Your task to perform on an android device: turn off notifications in google photos Image 0: 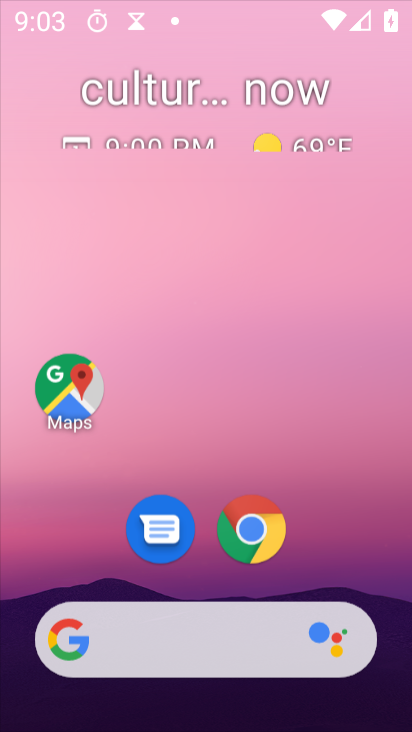
Step 0: drag from (357, 254) to (299, 72)
Your task to perform on an android device: turn off notifications in google photos Image 1: 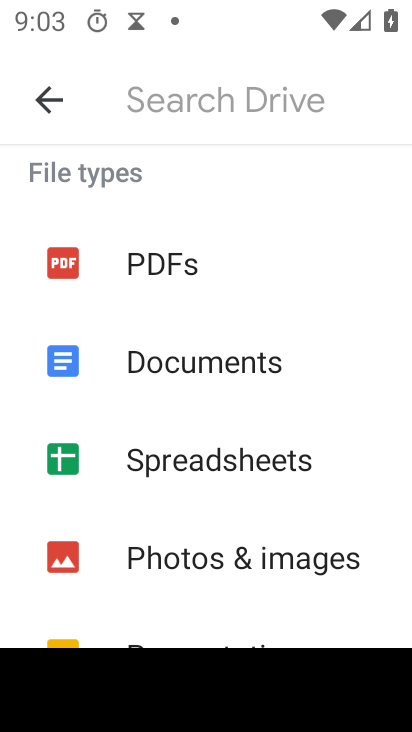
Step 1: press home button
Your task to perform on an android device: turn off notifications in google photos Image 2: 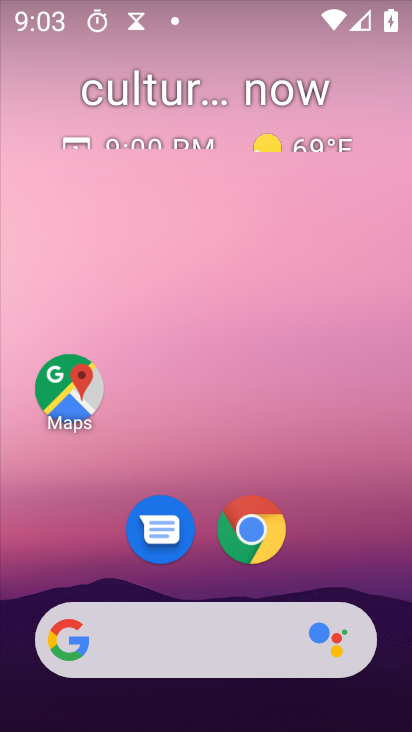
Step 2: drag from (347, 528) to (313, 64)
Your task to perform on an android device: turn off notifications in google photos Image 3: 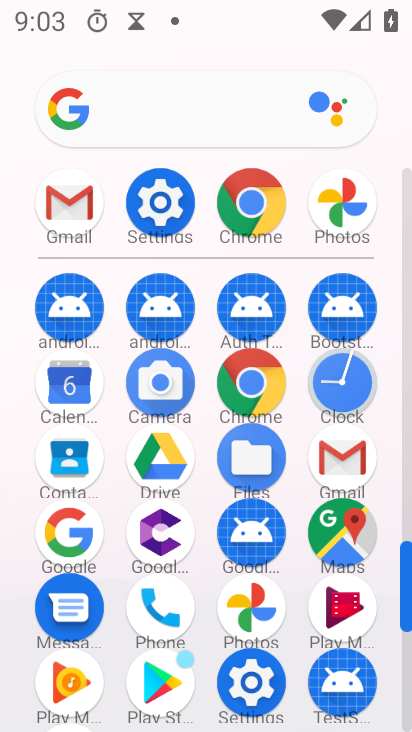
Step 3: click (241, 611)
Your task to perform on an android device: turn off notifications in google photos Image 4: 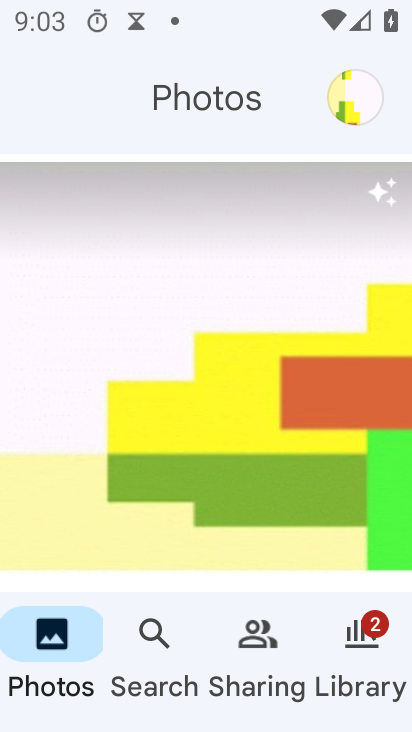
Step 4: click (362, 105)
Your task to perform on an android device: turn off notifications in google photos Image 5: 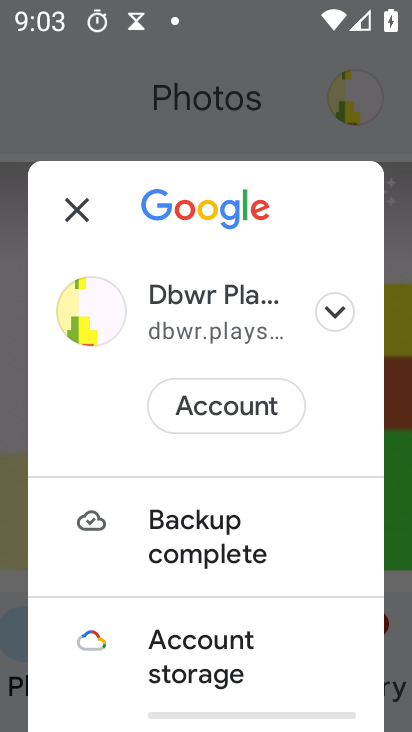
Step 5: drag from (275, 660) to (261, 154)
Your task to perform on an android device: turn off notifications in google photos Image 6: 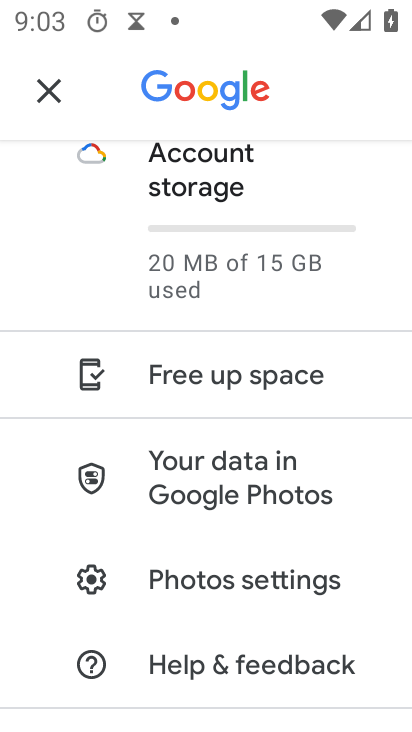
Step 6: click (280, 584)
Your task to perform on an android device: turn off notifications in google photos Image 7: 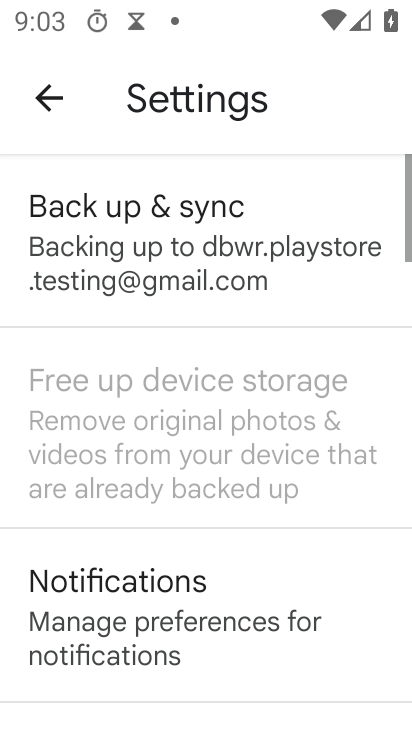
Step 7: drag from (285, 600) to (245, 297)
Your task to perform on an android device: turn off notifications in google photos Image 8: 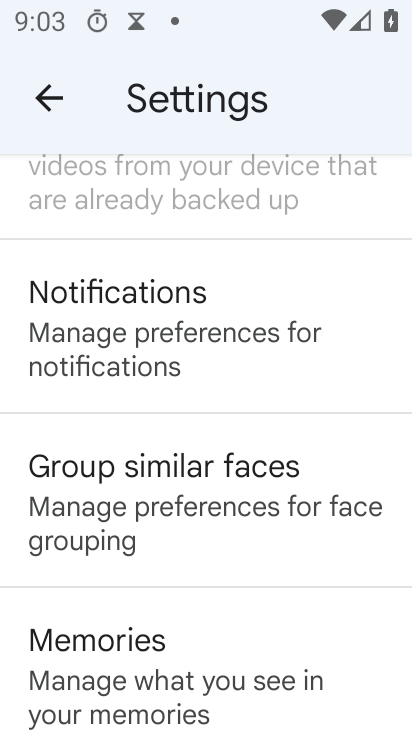
Step 8: click (239, 309)
Your task to perform on an android device: turn off notifications in google photos Image 9: 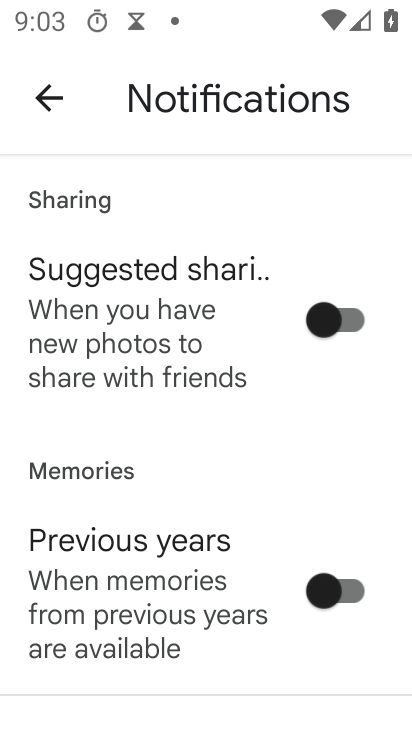
Step 9: drag from (232, 582) to (191, 152)
Your task to perform on an android device: turn off notifications in google photos Image 10: 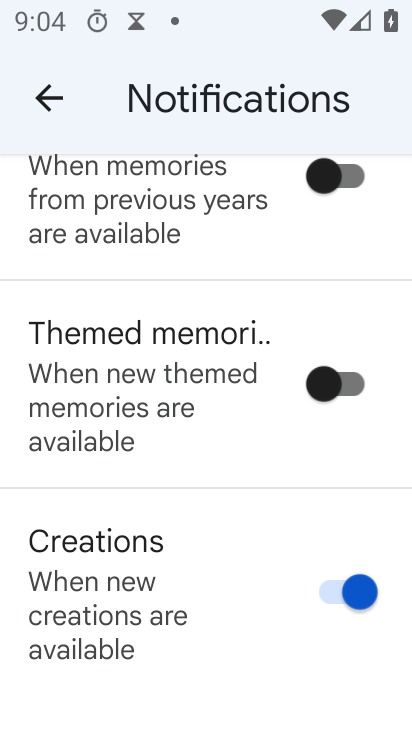
Step 10: click (345, 587)
Your task to perform on an android device: turn off notifications in google photos Image 11: 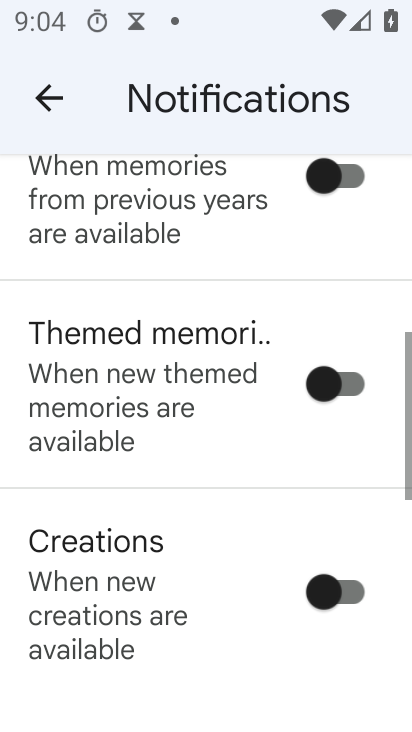
Step 11: drag from (196, 635) to (205, 156)
Your task to perform on an android device: turn off notifications in google photos Image 12: 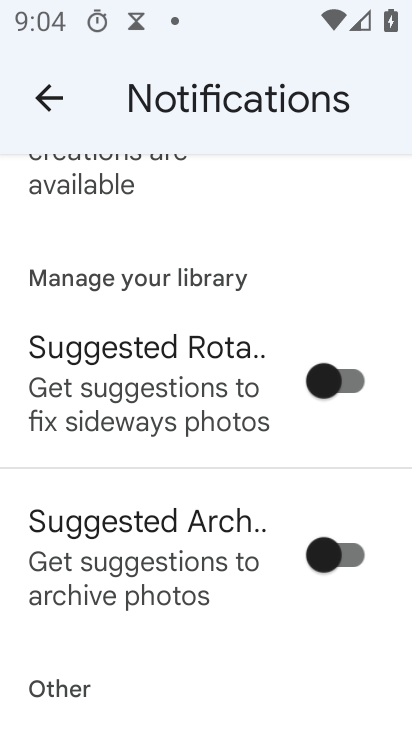
Step 12: drag from (268, 579) to (247, 145)
Your task to perform on an android device: turn off notifications in google photos Image 13: 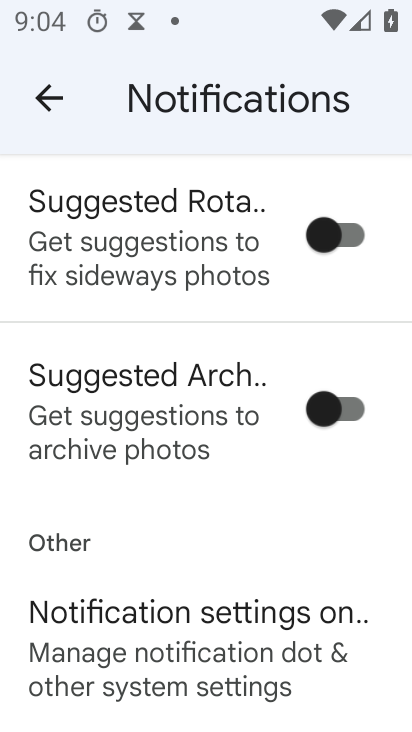
Step 13: drag from (209, 570) to (212, 195)
Your task to perform on an android device: turn off notifications in google photos Image 14: 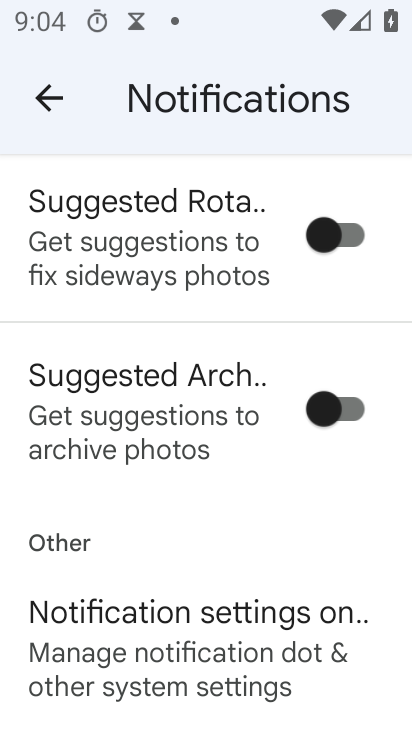
Step 14: click (223, 622)
Your task to perform on an android device: turn off notifications in google photos Image 15: 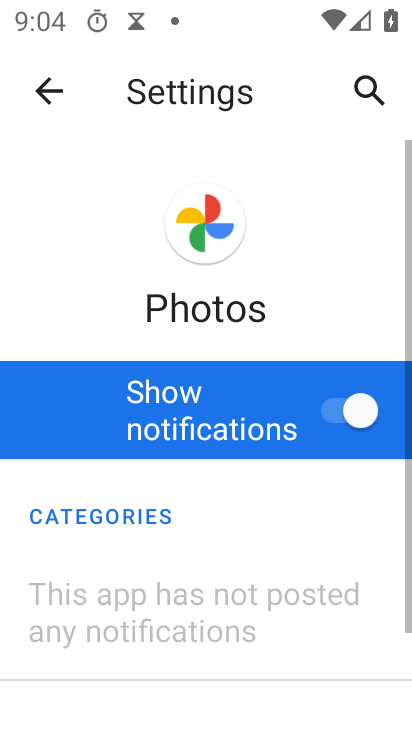
Step 15: click (346, 401)
Your task to perform on an android device: turn off notifications in google photos Image 16: 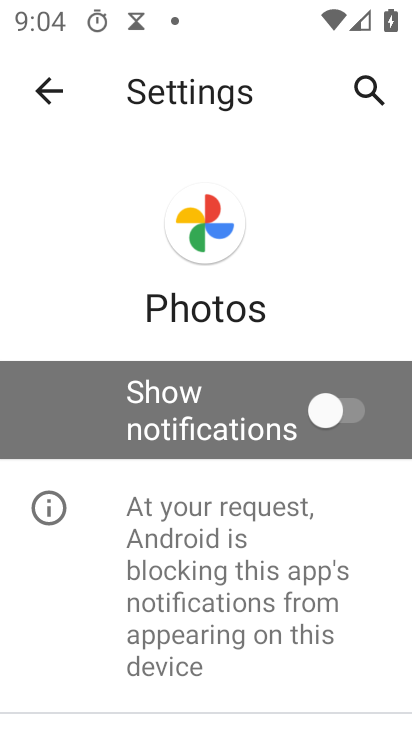
Step 16: task complete